Your task to perform on an android device: What's the weather going to be tomorrow? Image 0: 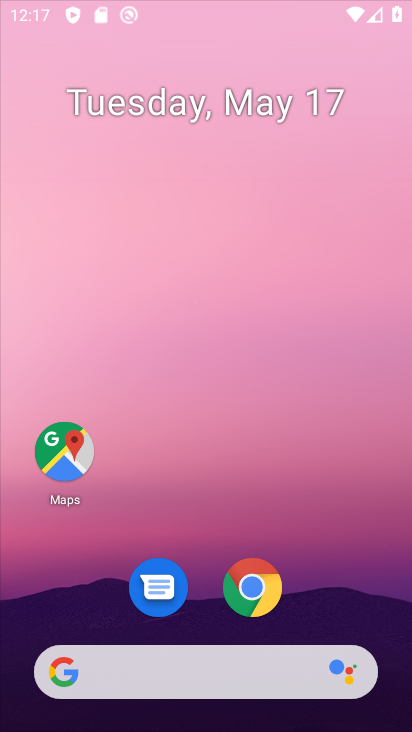
Step 0: click (246, 598)
Your task to perform on an android device: What's the weather going to be tomorrow? Image 1: 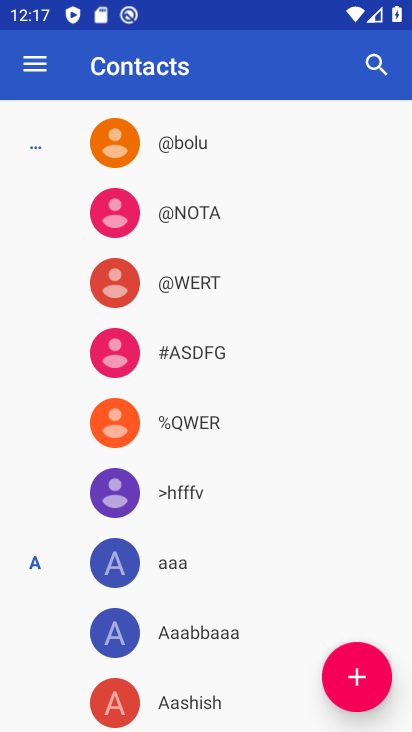
Step 1: press home button
Your task to perform on an android device: What's the weather going to be tomorrow? Image 2: 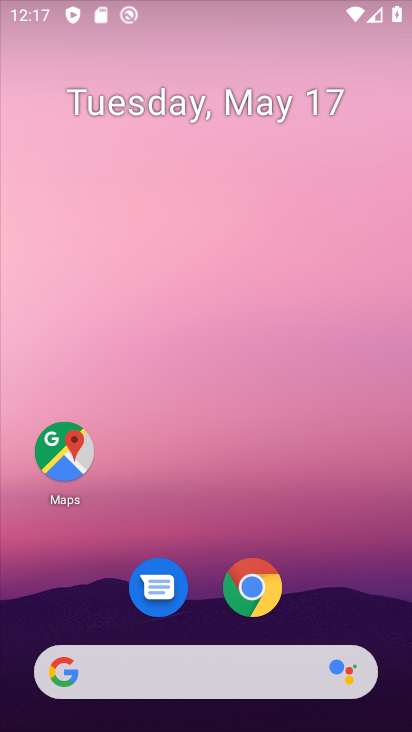
Step 2: click (202, 629)
Your task to perform on an android device: What's the weather going to be tomorrow? Image 3: 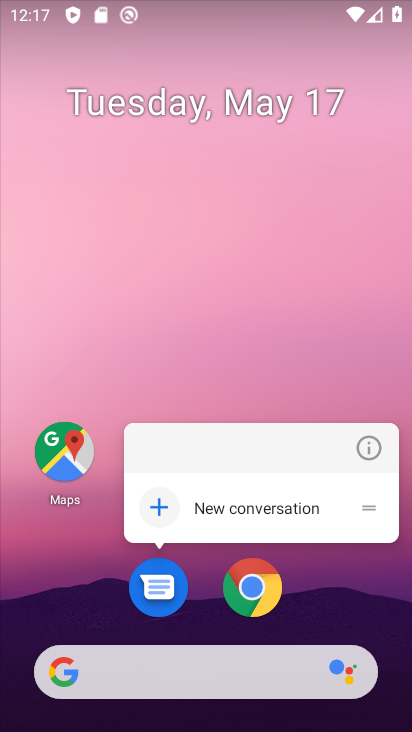
Step 3: click (208, 659)
Your task to perform on an android device: What's the weather going to be tomorrow? Image 4: 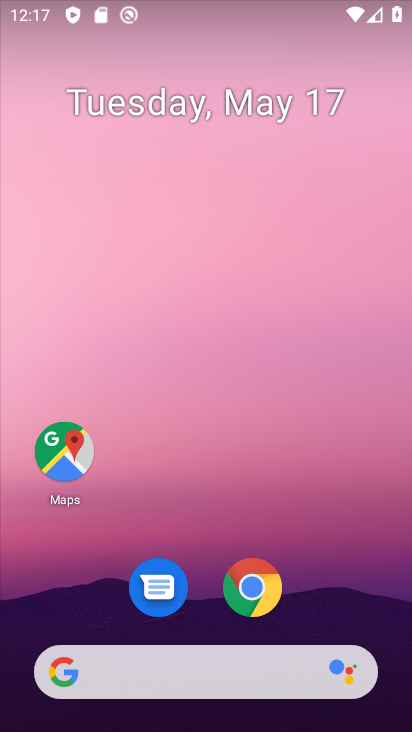
Step 4: click (219, 674)
Your task to perform on an android device: What's the weather going to be tomorrow? Image 5: 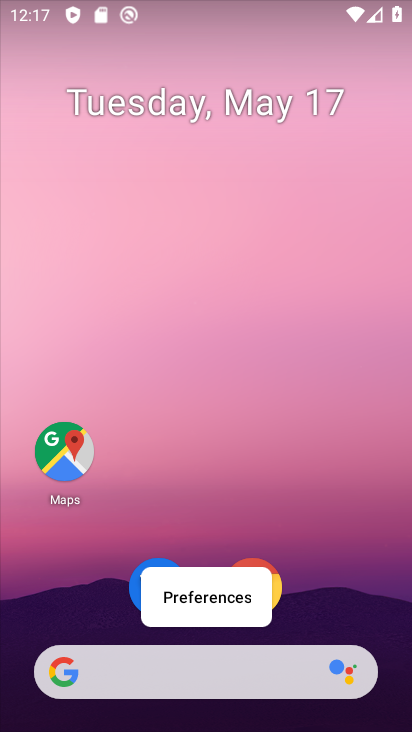
Step 5: click (163, 701)
Your task to perform on an android device: What's the weather going to be tomorrow? Image 6: 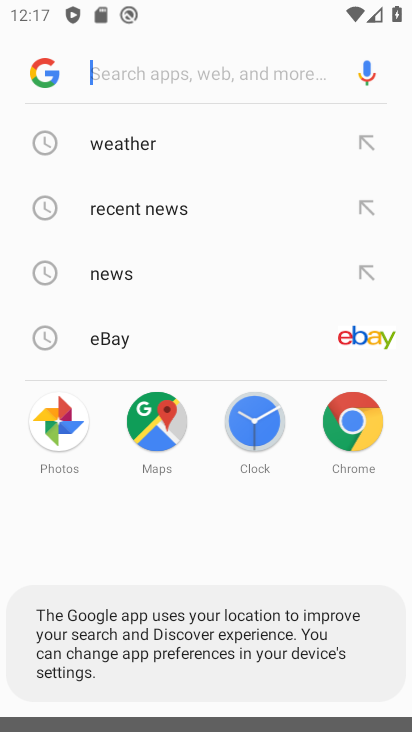
Step 6: click (111, 146)
Your task to perform on an android device: What's the weather going to be tomorrow? Image 7: 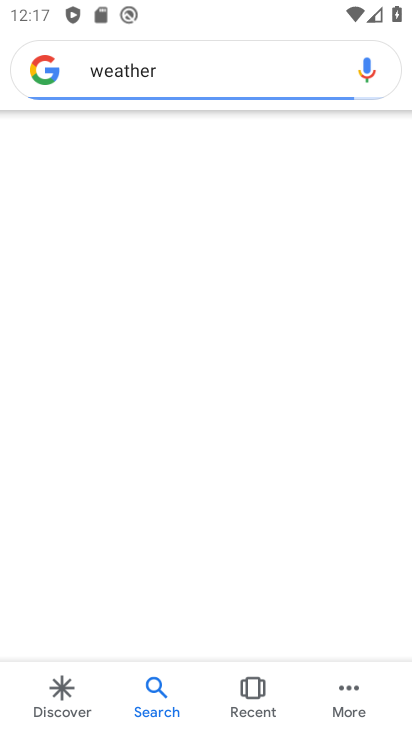
Step 7: task complete